Your task to perform on an android device: turn off notifications in google photos Image 0: 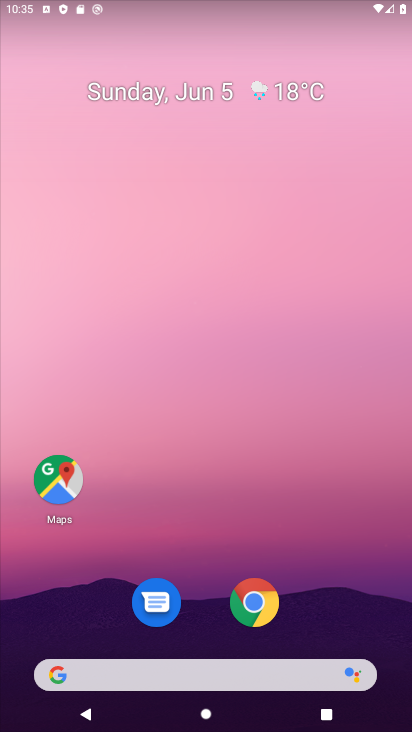
Step 0: task complete